Your task to perform on an android device: Open internet settings Image 0: 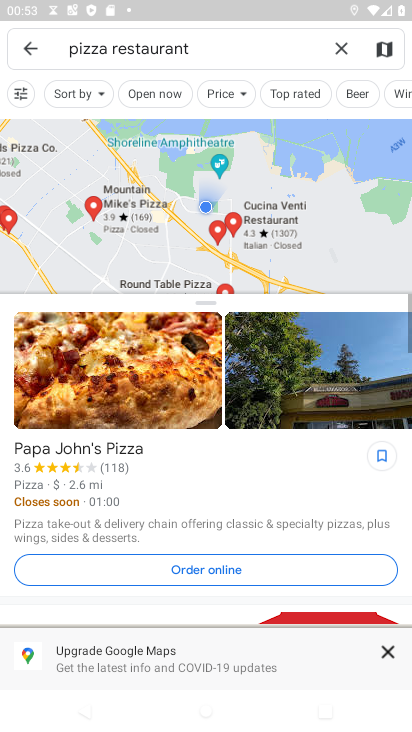
Step 0: press home button
Your task to perform on an android device: Open internet settings Image 1: 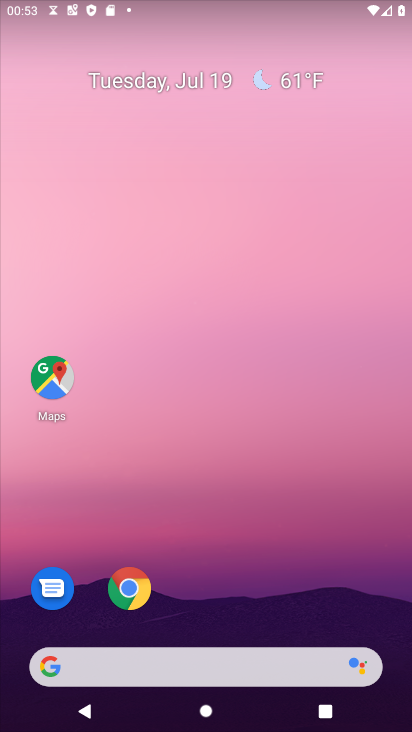
Step 1: drag from (277, 689) to (272, 321)
Your task to perform on an android device: Open internet settings Image 2: 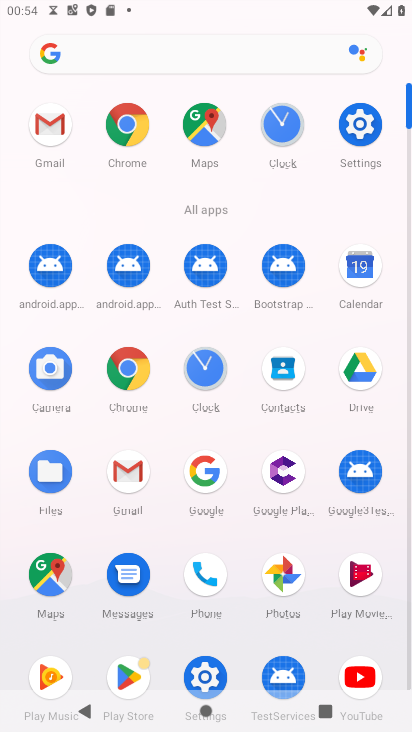
Step 2: click (209, 680)
Your task to perform on an android device: Open internet settings Image 3: 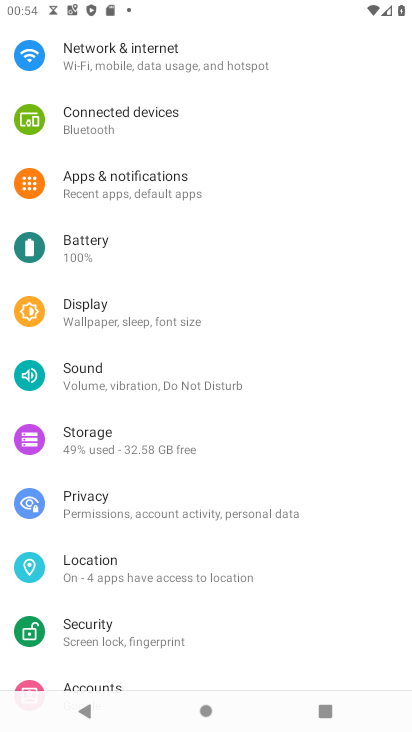
Step 3: click (133, 63)
Your task to perform on an android device: Open internet settings Image 4: 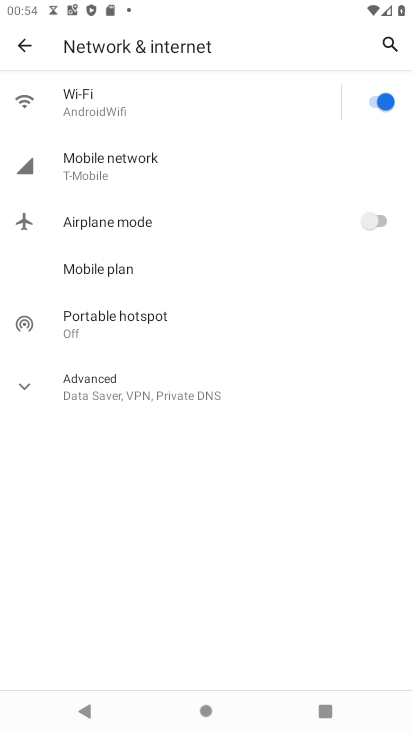
Step 4: task complete